Your task to perform on an android device: turn notification dots off Image 0: 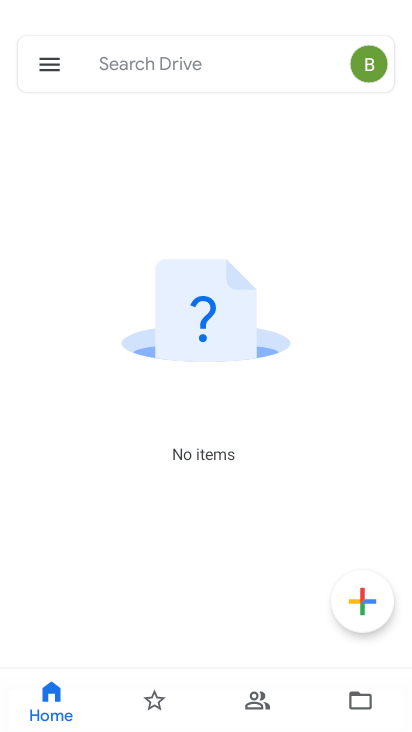
Step 0: press back button
Your task to perform on an android device: turn notification dots off Image 1: 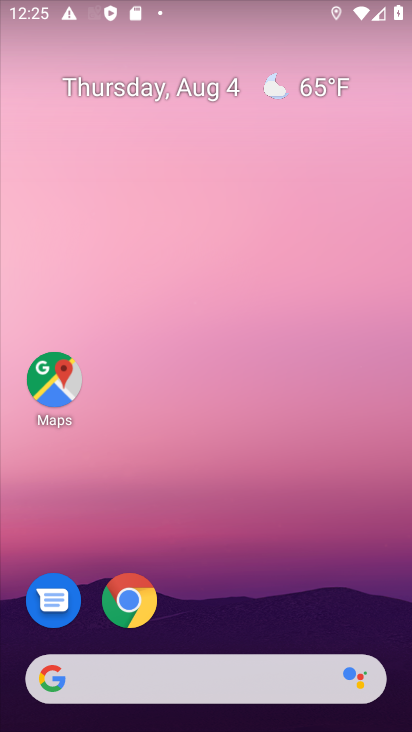
Step 1: drag from (206, 625) to (190, 121)
Your task to perform on an android device: turn notification dots off Image 2: 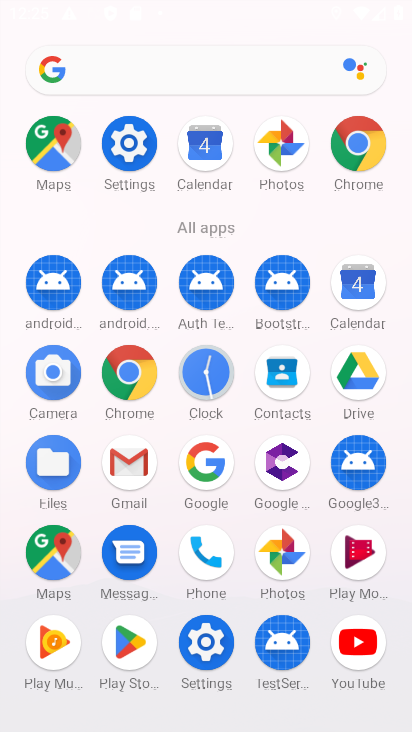
Step 2: click (145, 137)
Your task to perform on an android device: turn notification dots off Image 3: 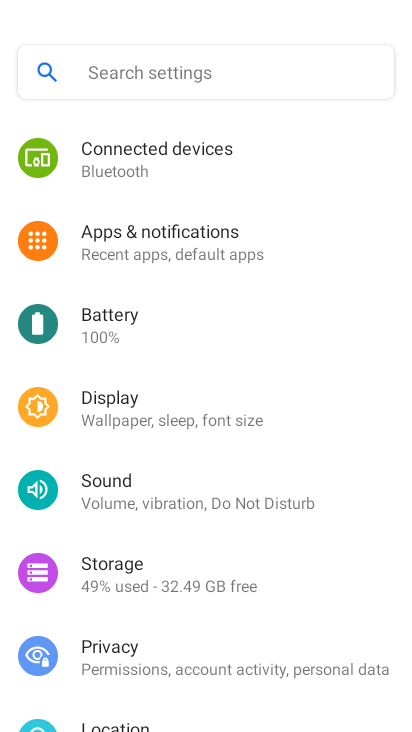
Step 3: click (121, 245)
Your task to perform on an android device: turn notification dots off Image 4: 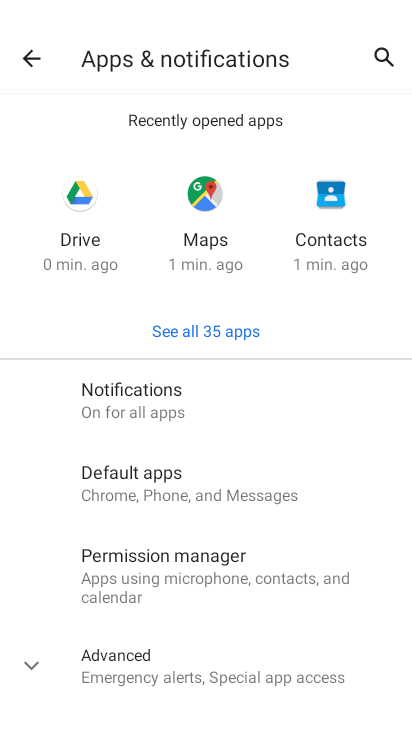
Step 4: click (83, 641)
Your task to perform on an android device: turn notification dots off Image 5: 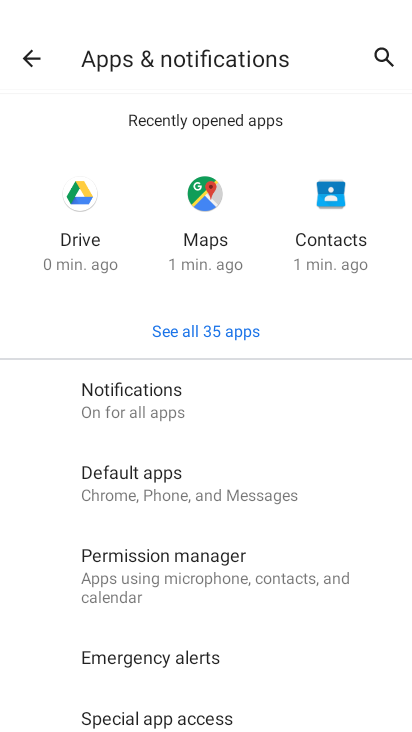
Step 5: drag from (120, 661) to (64, 171)
Your task to perform on an android device: turn notification dots off Image 6: 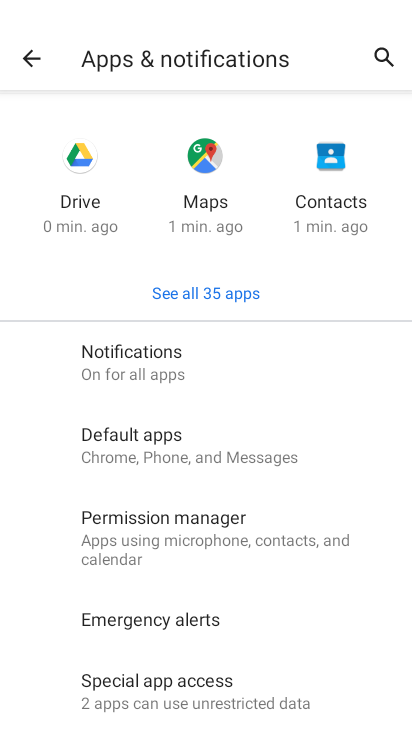
Step 6: click (111, 349)
Your task to perform on an android device: turn notification dots off Image 7: 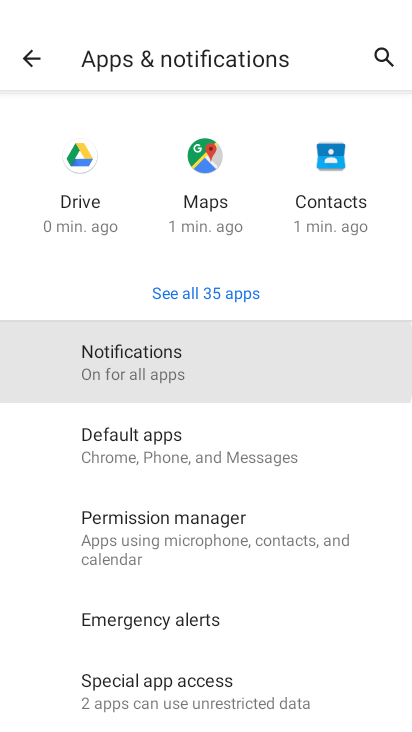
Step 7: click (111, 349)
Your task to perform on an android device: turn notification dots off Image 8: 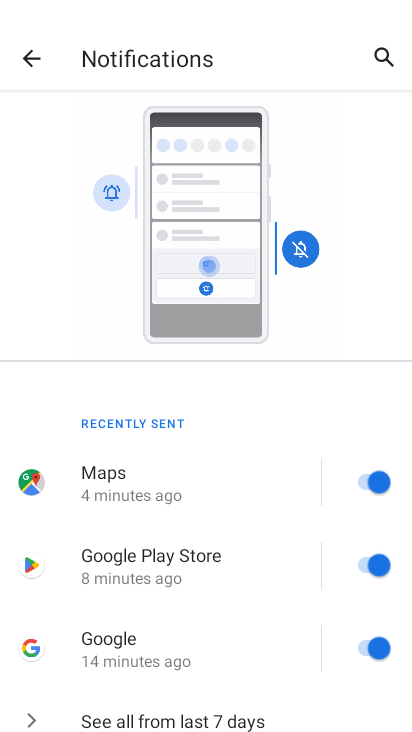
Step 8: drag from (111, 349) to (132, 9)
Your task to perform on an android device: turn notification dots off Image 9: 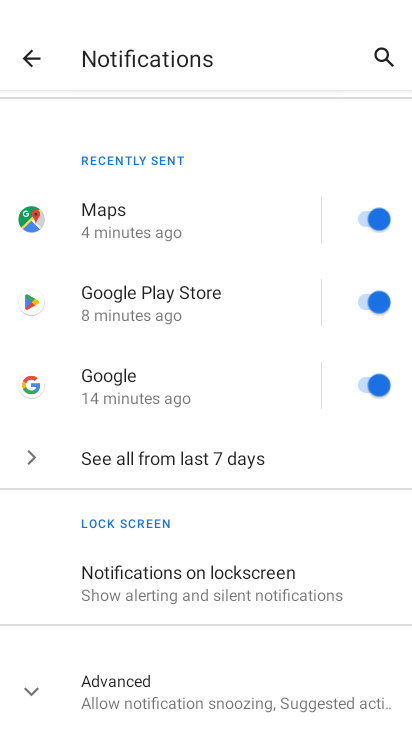
Step 9: click (207, 695)
Your task to perform on an android device: turn notification dots off Image 10: 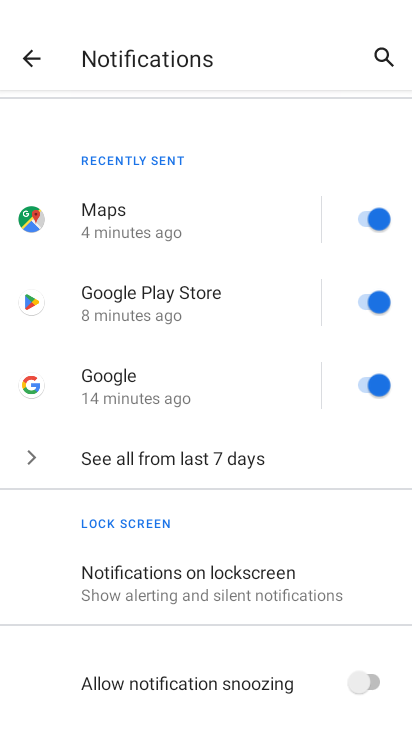
Step 10: task complete